Your task to perform on an android device: Go to Reddit.com Image 0: 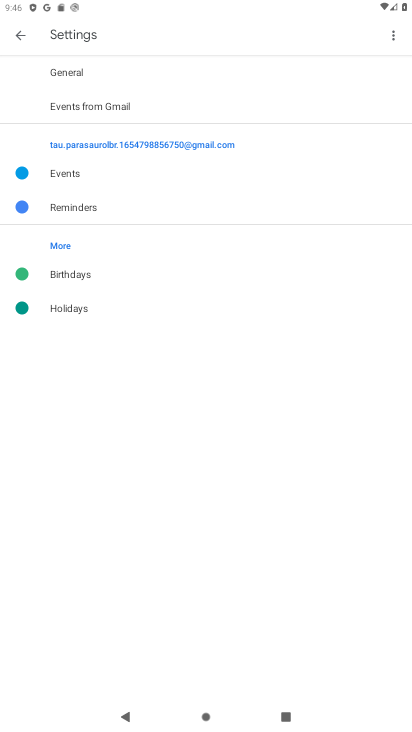
Step 0: press home button
Your task to perform on an android device: Go to Reddit.com Image 1: 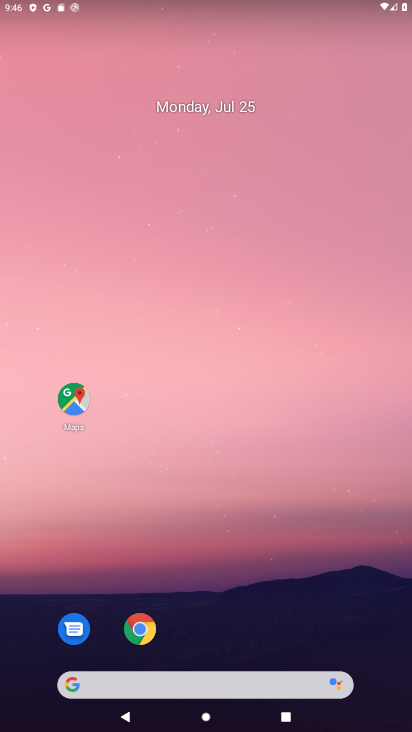
Step 1: click (138, 686)
Your task to perform on an android device: Go to Reddit.com Image 2: 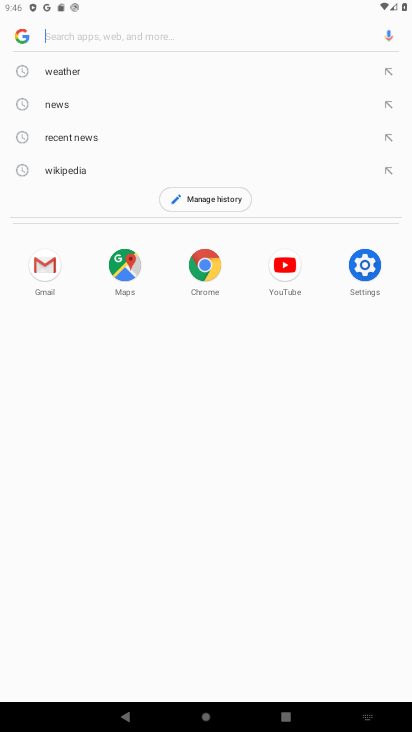
Step 2: type "reddit"
Your task to perform on an android device: Go to Reddit.com Image 3: 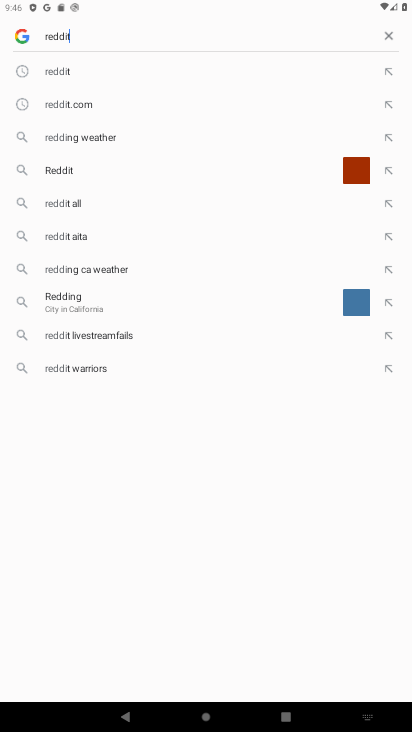
Step 3: type ""
Your task to perform on an android device: Go to Reddit.com Image 4: 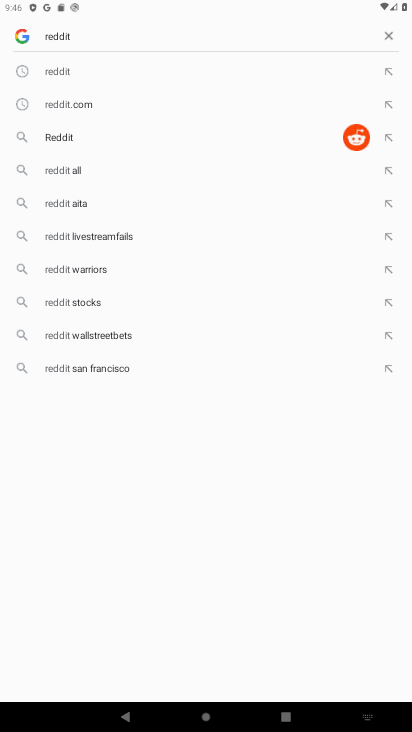
Step 4: click (78, 102)
Your task to perform on an android device: Go to Reddit.com Image 5: 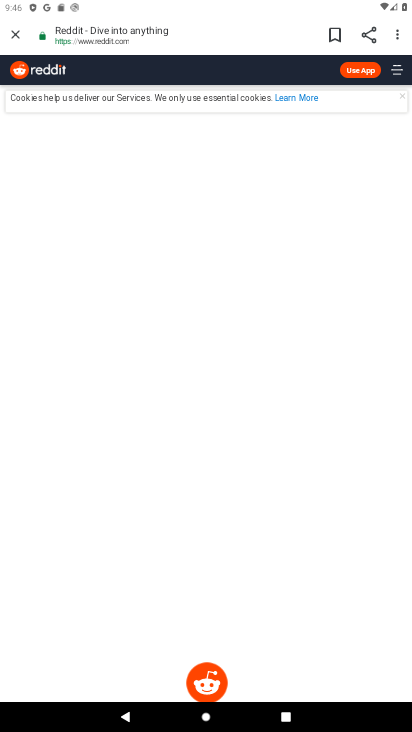
Step 5: task complete